Your task to perform on an android device: What's the news this month? Image 0: 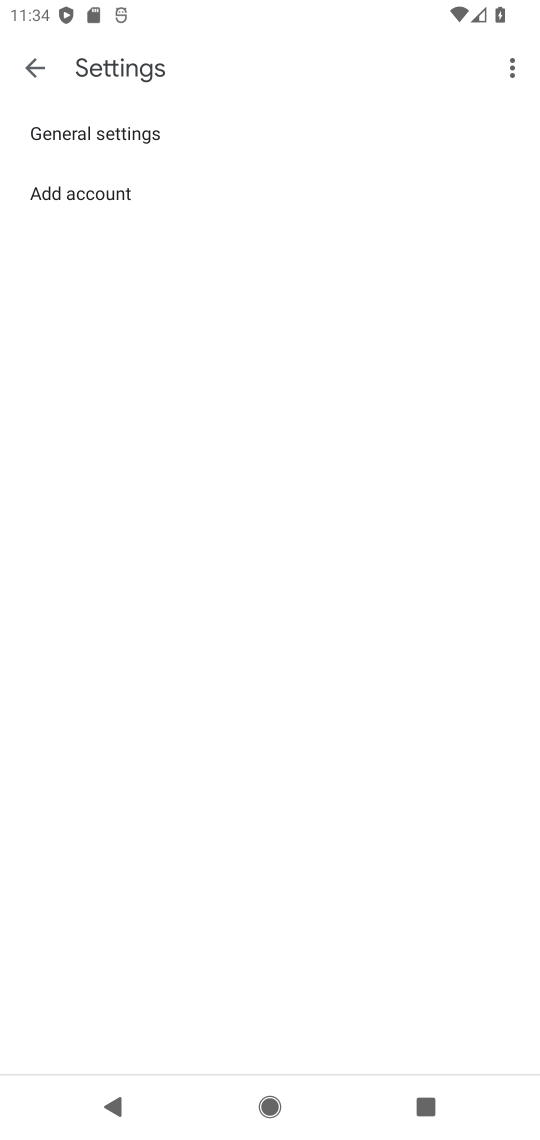
Step 0: press home button
Your task to perform on an android device: What's the news this month? Image 1: 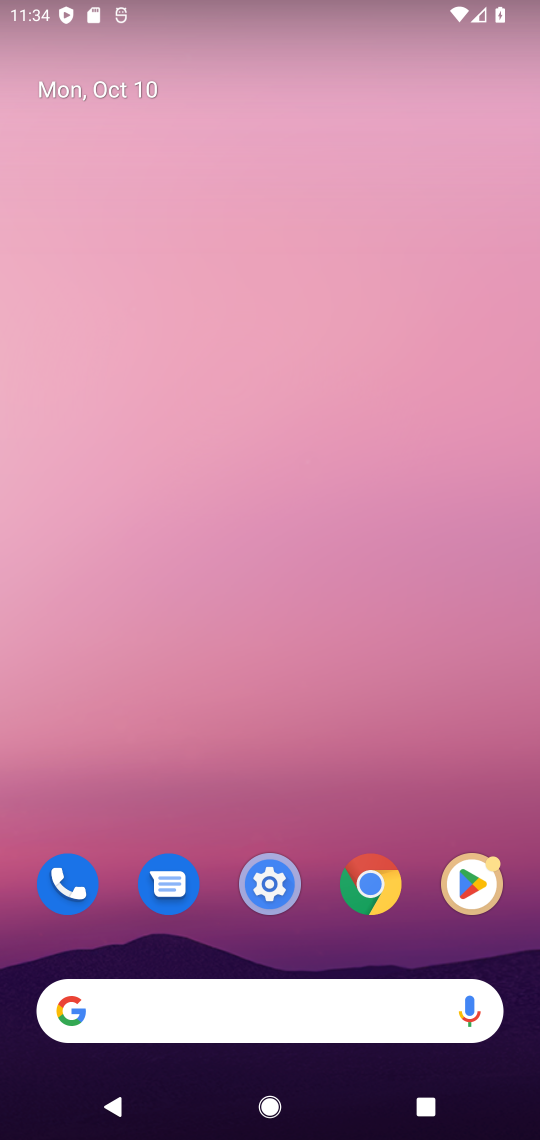
Step 1: click (385, 893)
Your task to perform on an android device: What's the news this month? Image 2: 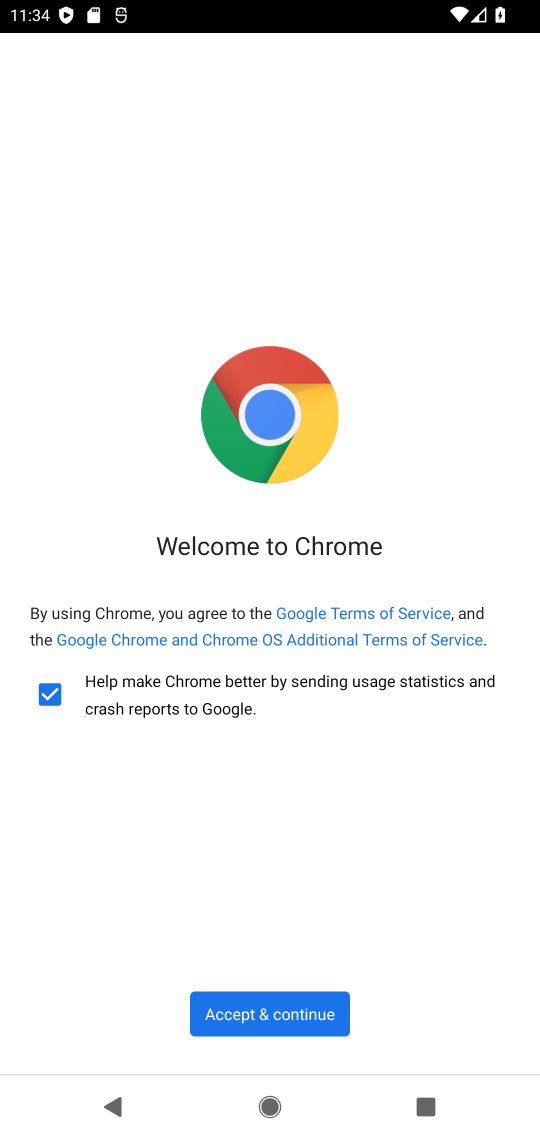
Step 2: click (300, 1002)
Your task to perform on an android device: What's the news this month? Image 3: 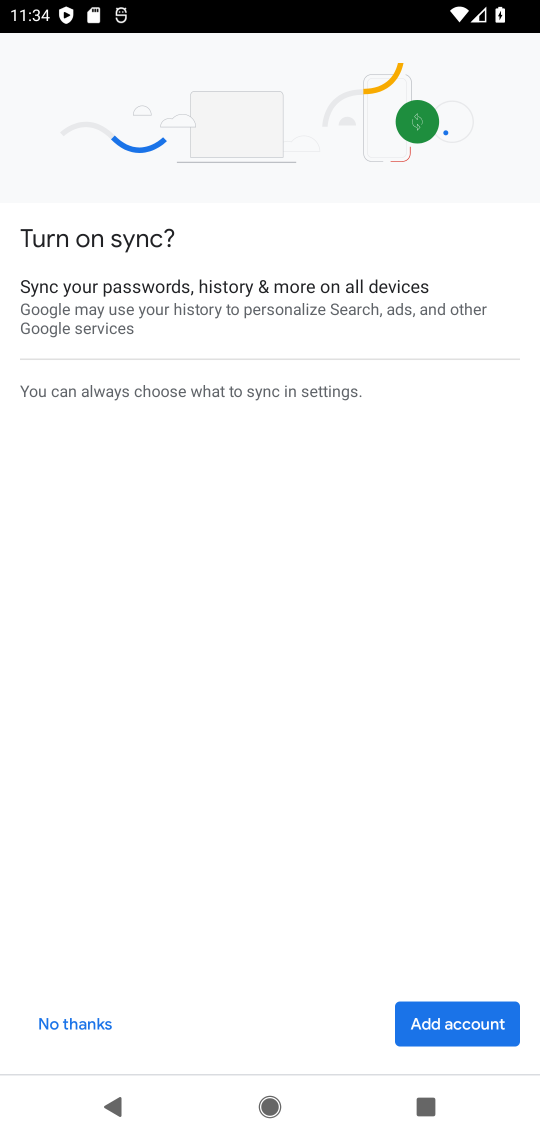
Step 3: click (86, 1027)
Your task to perform on an android device: What's the news this month? Image 4: 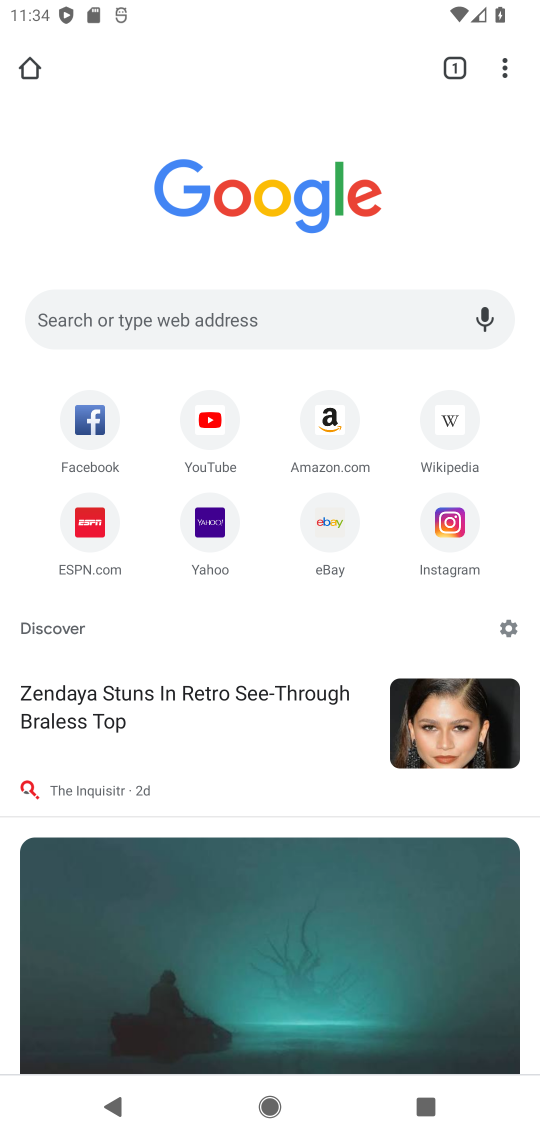
Step 4: click (163, 316)
Your task to perform on an android device: What's the news this month? Image 5: 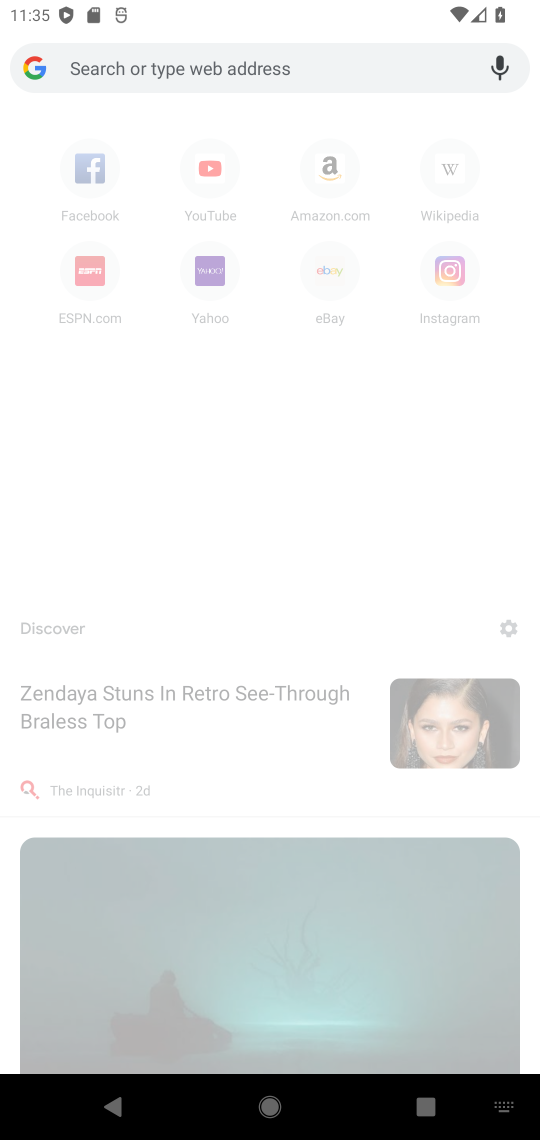
Step 5: type "news this month"
Your task to perform on an android device: What's the news this month? Image 6: 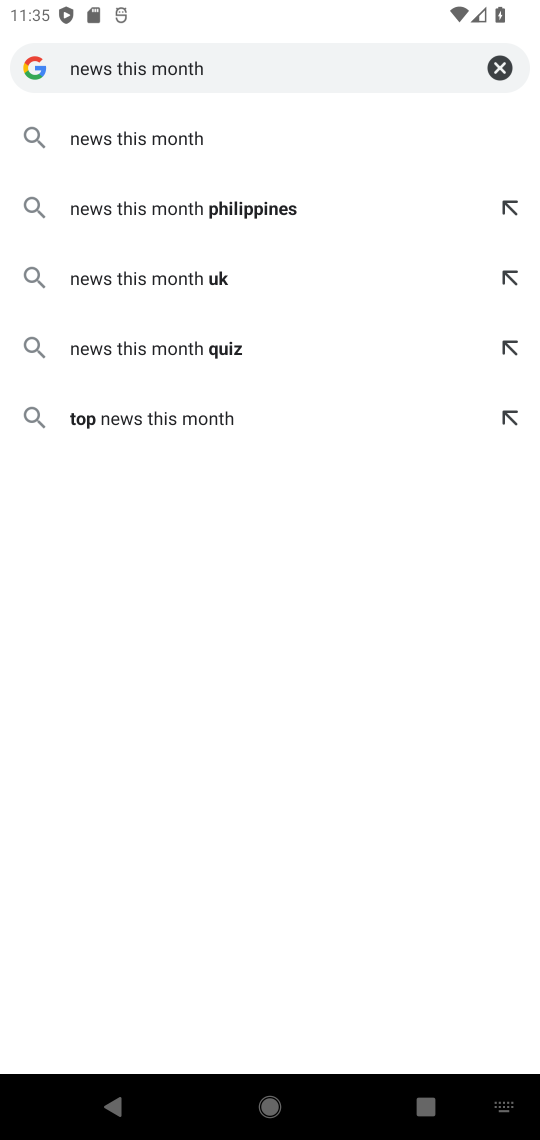
Step 6: press enter
Your task to perform on an android device: What's the news this month? Image 7: 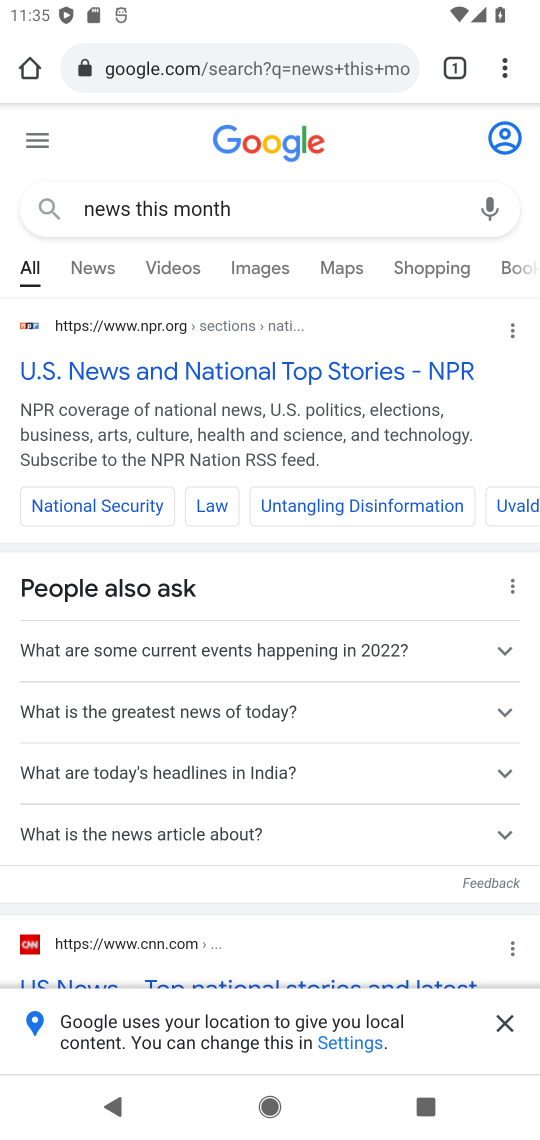
Step 7: click (94, 275)
Your task to perform on an android device: What's the news this month? Image 8: 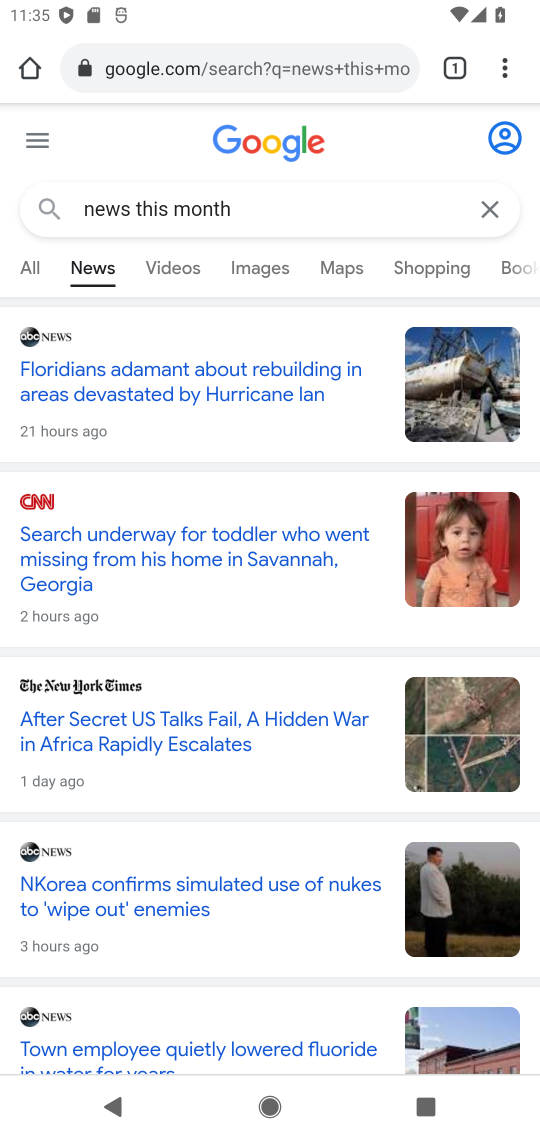
Step 8: task complete